Your task to perform on an android device: turn smart compose on in the gmail app Image 0: 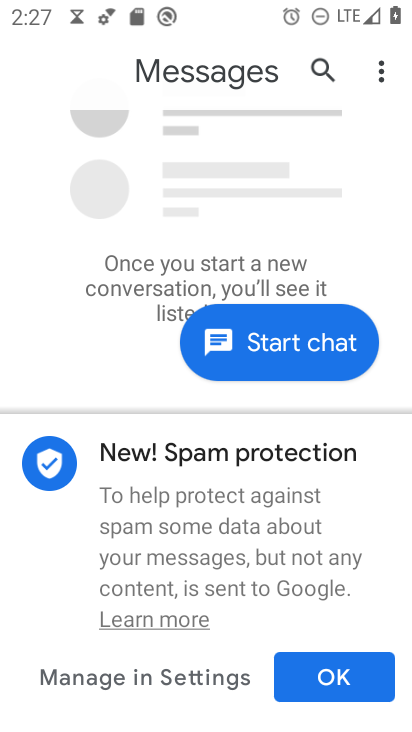
Step 0: press home button
Your task to perform on an android device: turn smart compose on in the gmail app Image 1: 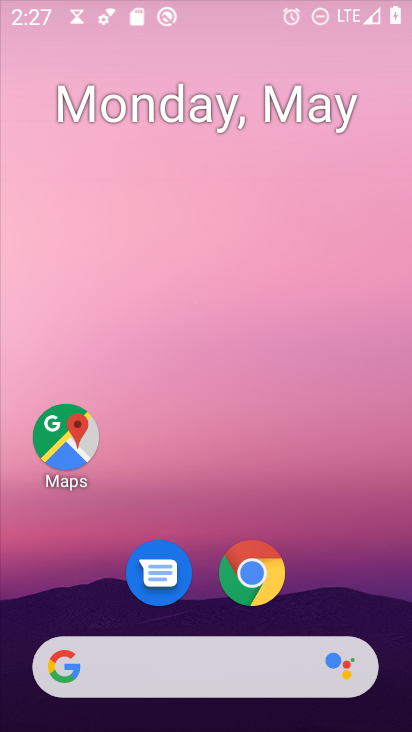
Step 1: drag from (280, 686) to (287, 85)
Your task to perform on an android device: turn smart compose on in the gmail app Image 2: 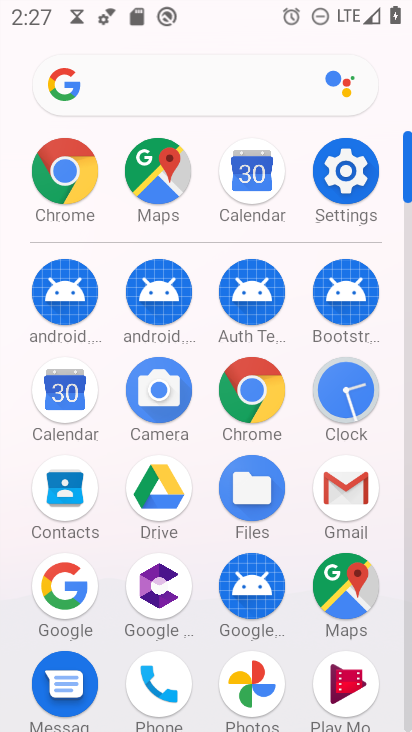
Step 2: click (333, 488)
Your task to perform on an android device: turn smart compose on in the gmail app Image 3: 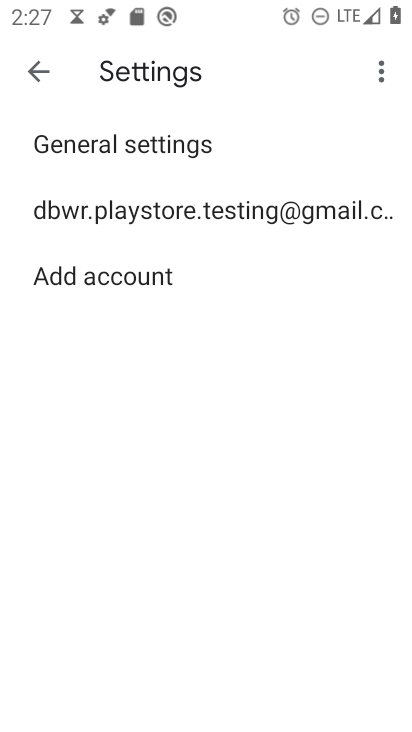
Step 3: press back button
Your task to perform on an android device: turn smart compose on in the gmail app Image 4: 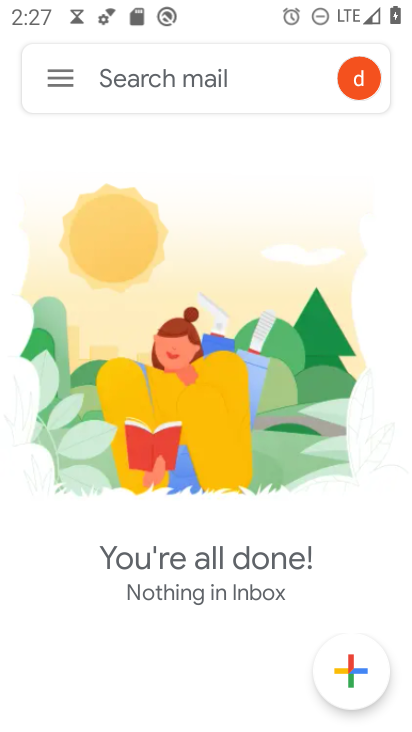
Step 4: click (64, 74)
Your task to perform on an android device: turn smart compose on in the gmail app Image 5: 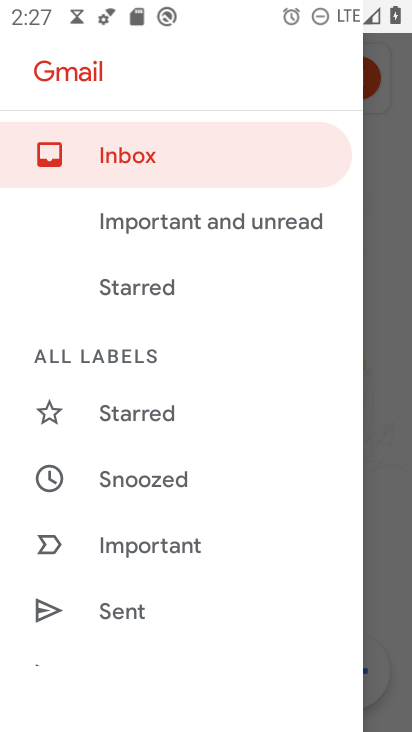
Step 5: drag from (186, 652) to (243, 8)
Your task to perform on an android device: turn smart compose on in the gmail app Image 6: 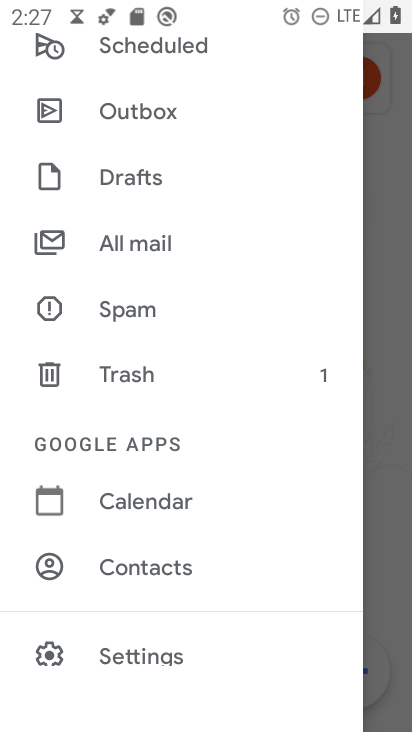
Step 6: click (192, 666)
Your task to perform on an android device: turn smart compose on in the gmail app Image 7: 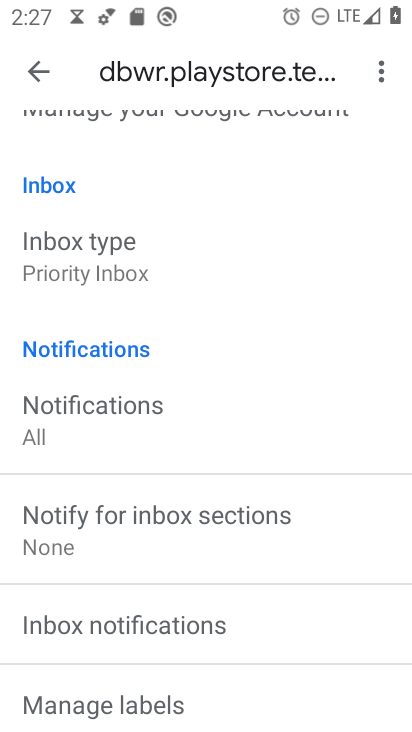
Step 7: task complete